Your task to perform on an android device: manage bookmarks in the chrome app Image 0: 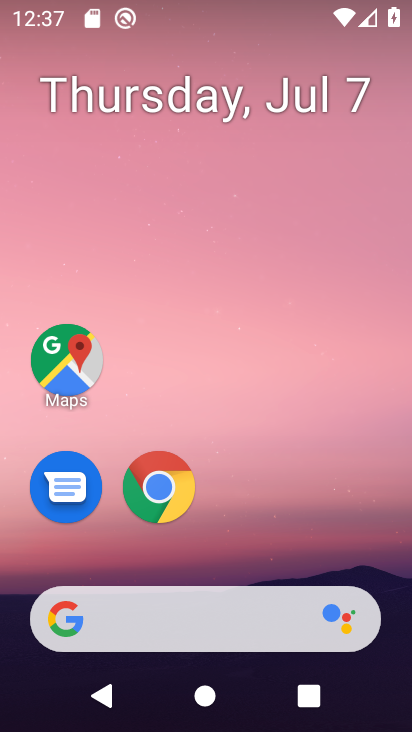
Step 0: drag from (348, 552) to (364, 157)
Your task to perform on an android device: manage bookmarks in the chrome app Image 1: 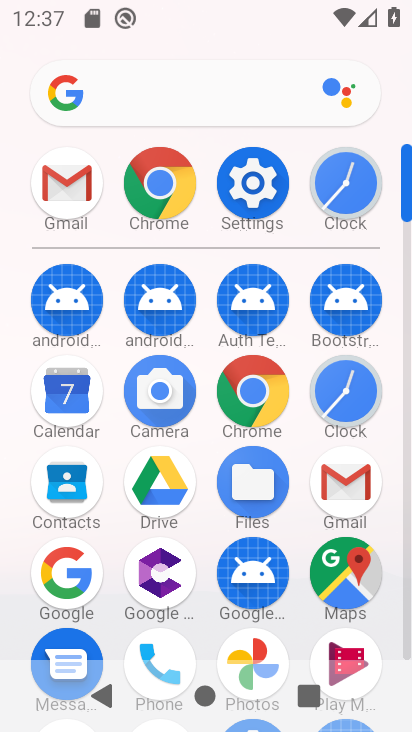
Step 1: click (263, 391)
Your task to perform on an android device: manage bookmarks in the chrome app Image 2: 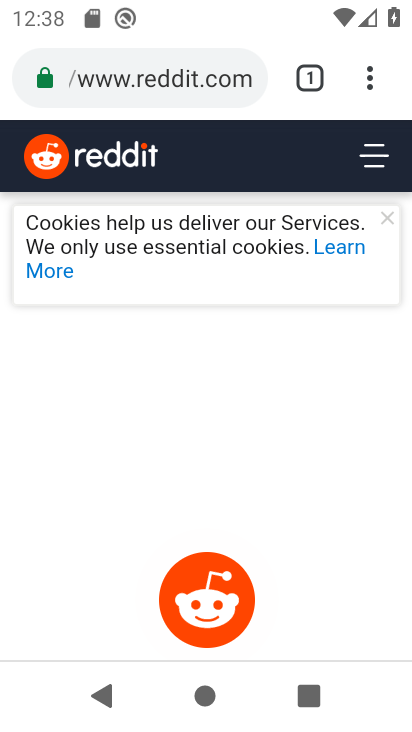
Step 2: click (369, 78)
Your task to perform on an android device: manage bookmarks in the chrome app Image 3: 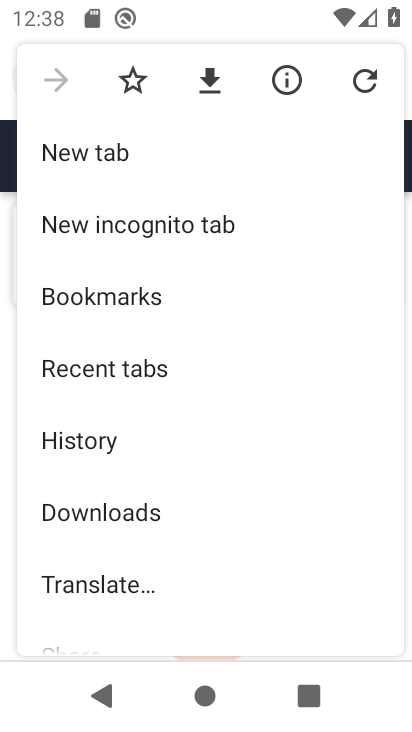
Step 3: drag from (312, 462) to (326, 300)
Your task to perform on an android device: manage bookmarks in the chrome app Image 4: 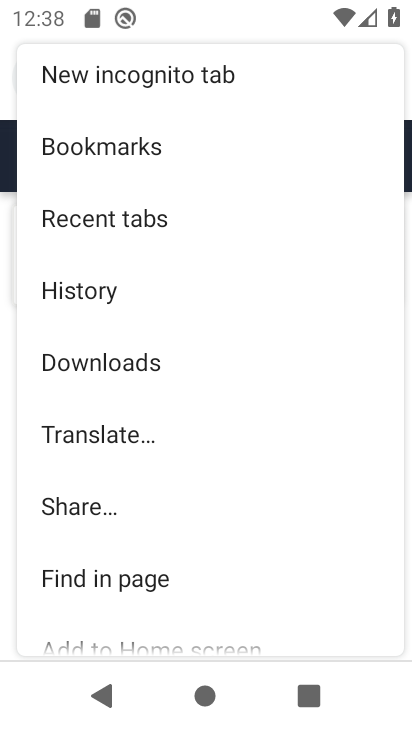
Step 4: drag from (302, 510) to (299, 359)
Your task to perform on an android device: manage bookmarks in the chrome app Image 5: 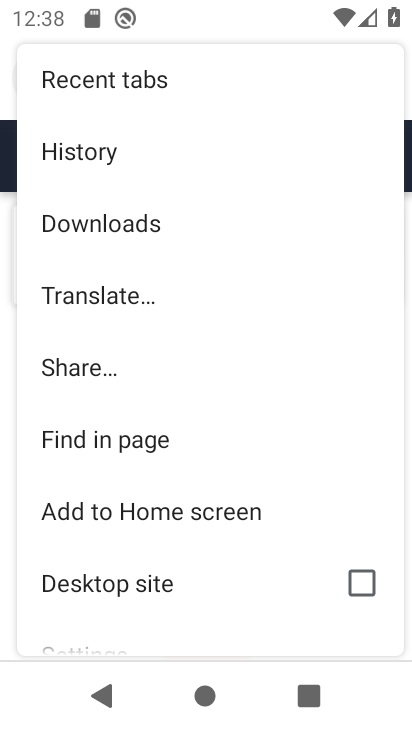
Step 5: drag from (283, 558) to (299, 384)
Your task to perform on an android device: manage bookmarks in the chrome app Image 6: 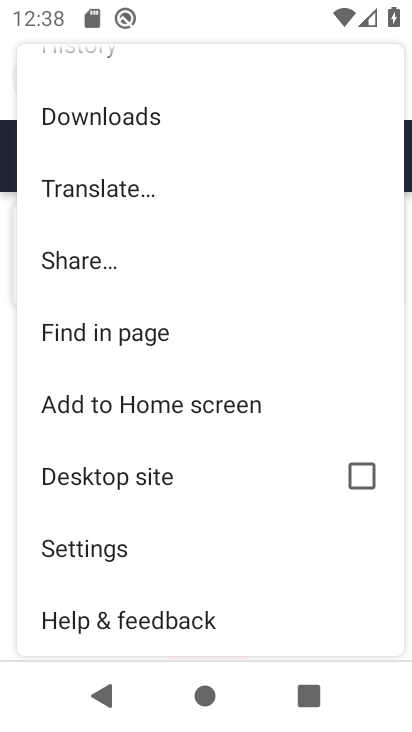
Step 6: drag from (277, 551) to (293, 405)
Your task to perform on an android device: manage bookmarks in the chrome app Image 7: 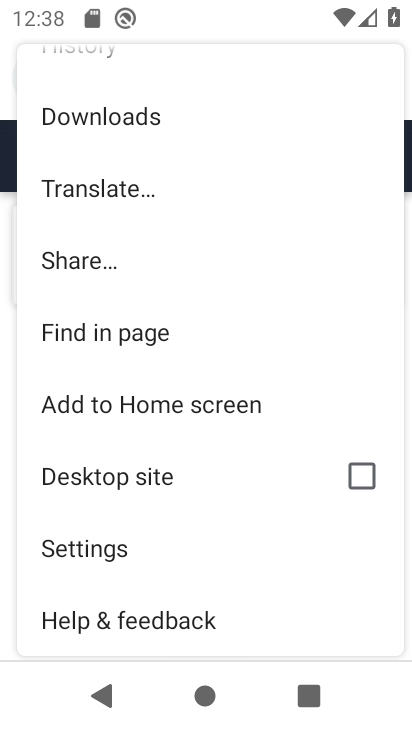
Step 7: drag from (269, 231) to (265, 412)
Your task to perform on an android device: manage bookmarks in the chrome app Image 8: 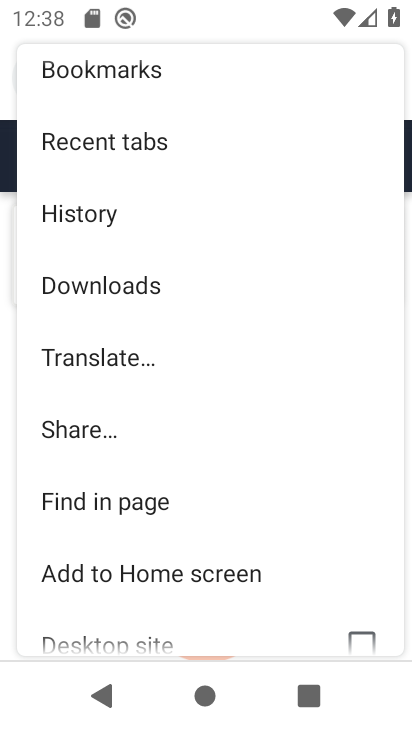
Step 8: drag from (263, 212) to (256, 385)
Your task to perform on an android device: manage bookmarks in the chrome app Image 9: 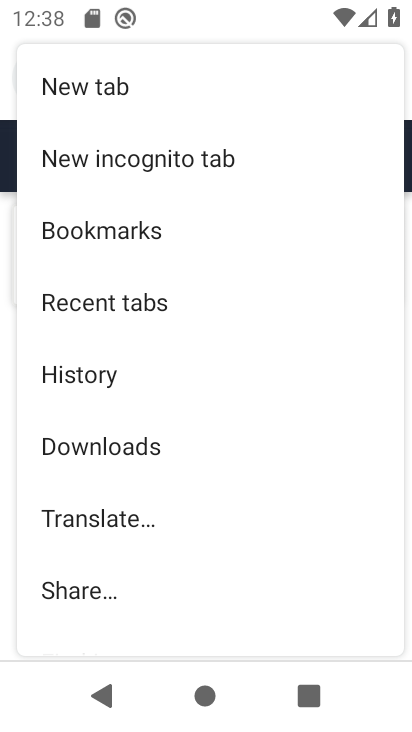
Step 9: drag from (279, 203) to (268, 376)
Your task to perform on an android device: manage bookmarks in the chrome app Image 10: 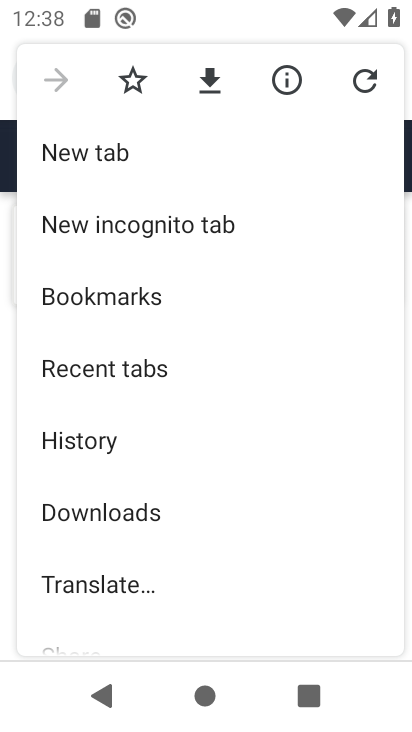
Step 10: click (178, 308)
Your task to perform on an android device: manage bookmarks in the chrome app Image 11: 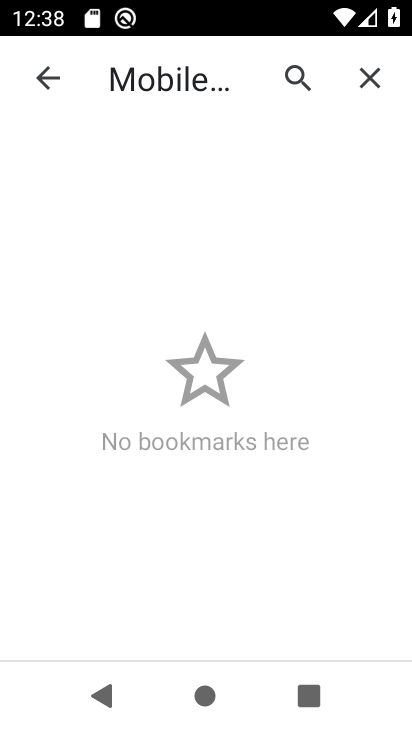
Step 11: task complete